Your task to perform on an android device: Open network settings Image 0: 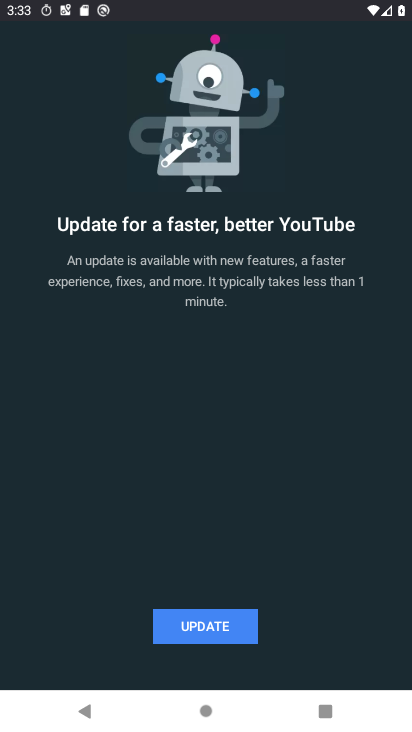
Step 0: press home button
Your task to perform on an android device: Open network settings Image 1: 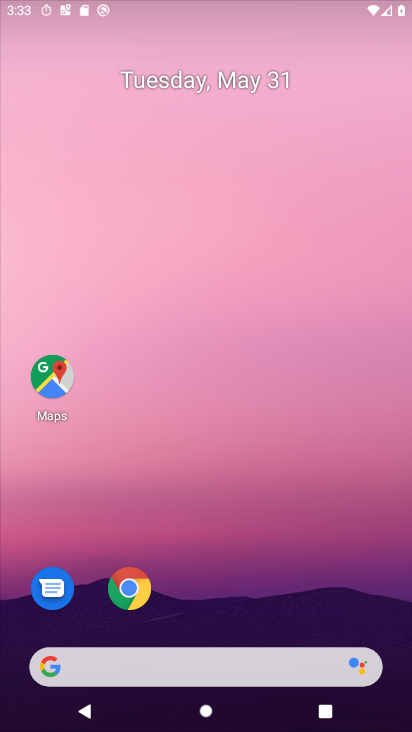
Step 1: drag from (253, 675) to (301, 174)
Your task to perform on an android device: Open network settings Image 2: 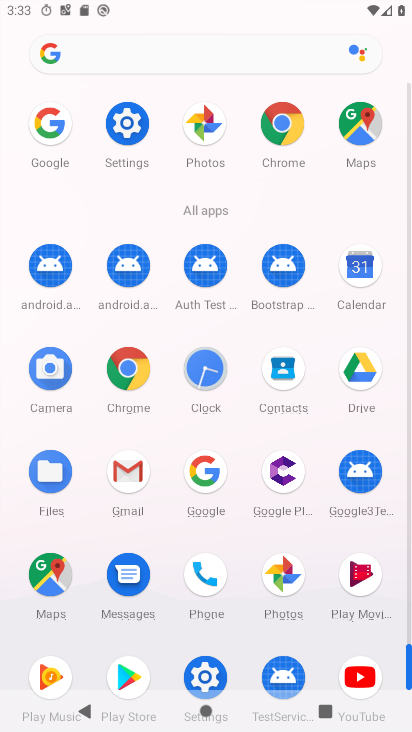
Step 2: click (147, 145)
Your task to perform on an android device: Open network settings Image 3: 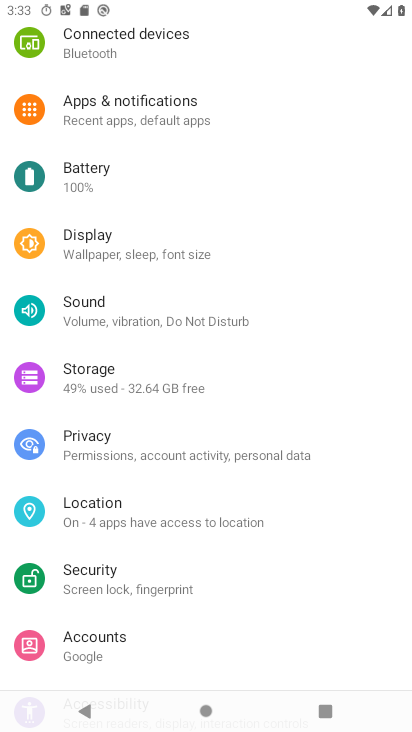
Step 3: drag from (183, 330) to (190, 597)
Your task to perform on an android device: Open network settings Image 4: 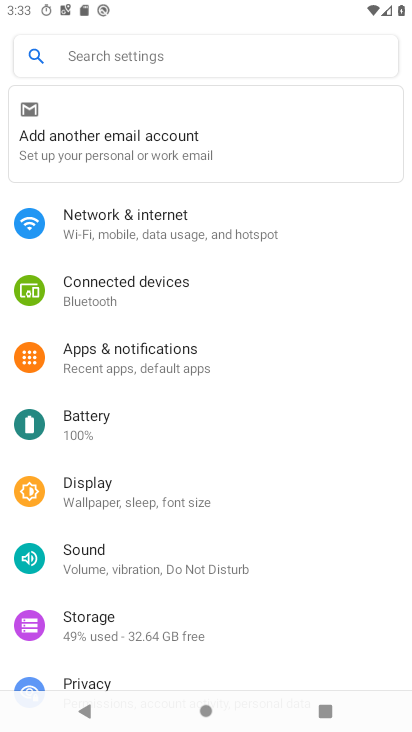
Step 4: click (165, 220)
Your task to perform on an android device: Open network settings Image 5: 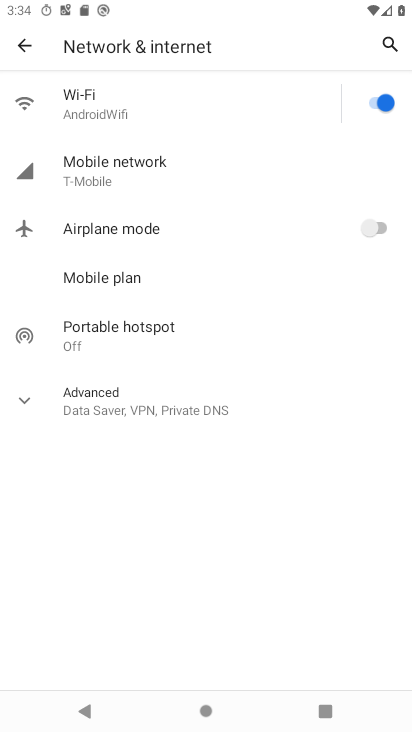
Step 5: click (141, 179)
Your task to perform on an android device: Open network settings Image 6: 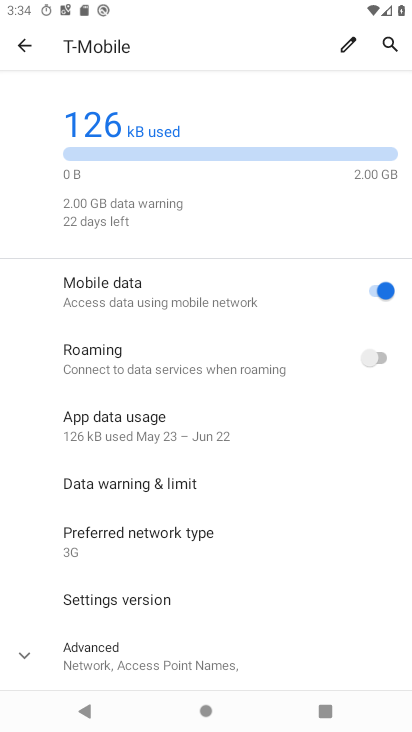
Step 6: click (178, 423)
Your task to perform on an android device: Open network settings Image 7: 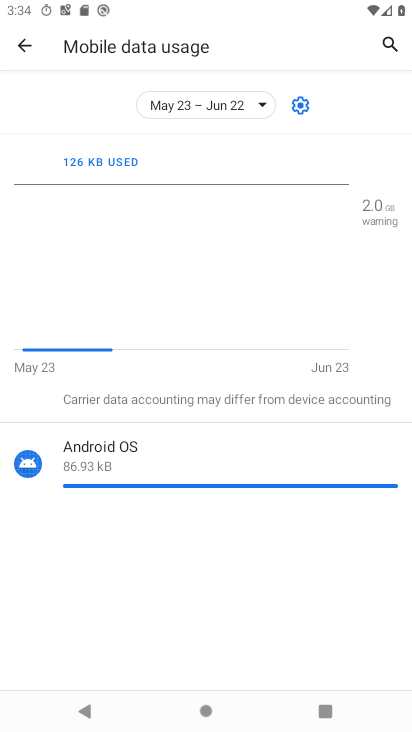
Step 7: task complete